Your task to perform on an android device: change notifications settings Image 0: 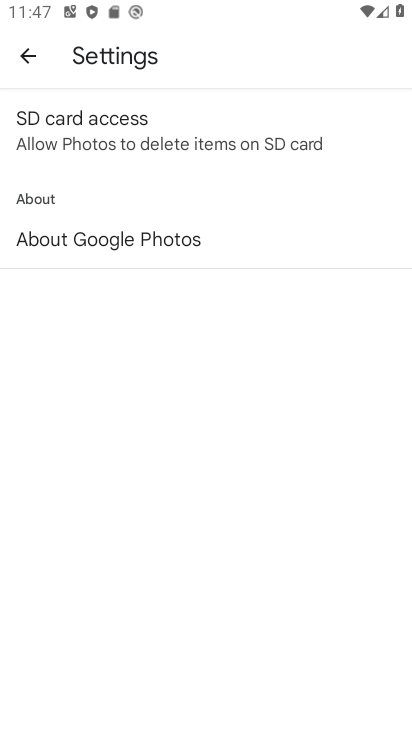
Step 0: press home button
Your task to perform on an android device: change notifications settings Image 1: 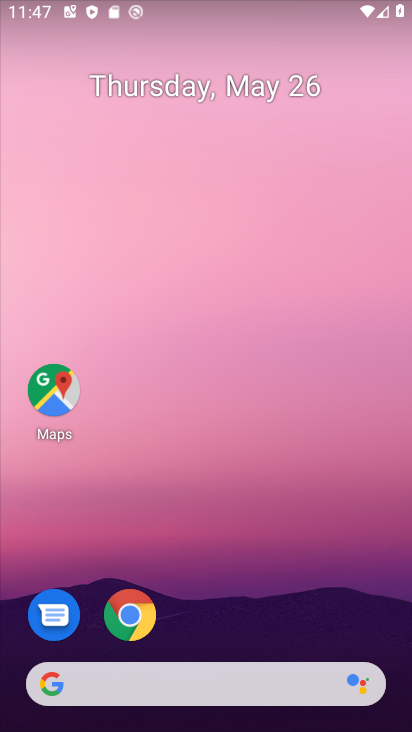
Step 1: drag from (127, 669) to (281, 0)
Your task to perform on an android device: change notifications settings Image 2: 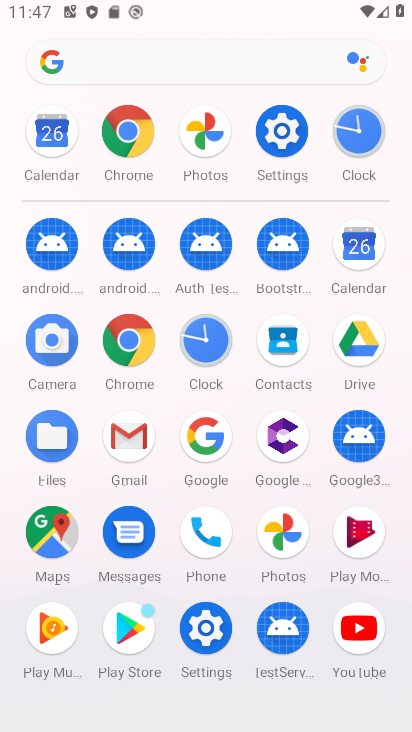
Step 2: click (220, 627)
Your task to perform on an android device: change notifications settings Image 3: 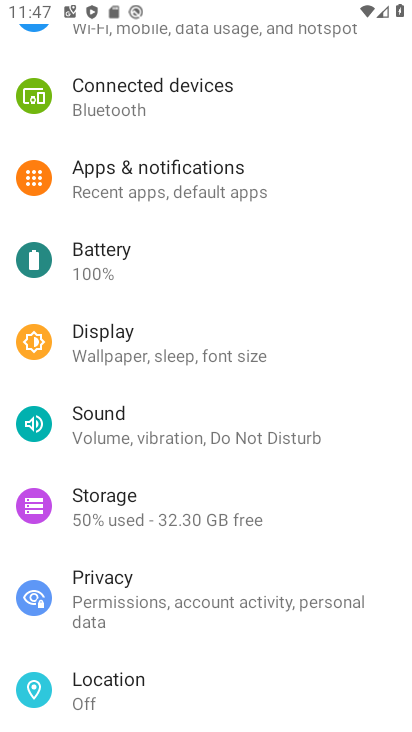
Step 3: click (234, 181)
Your task to perform on an android device: change notifications settings Image 4: 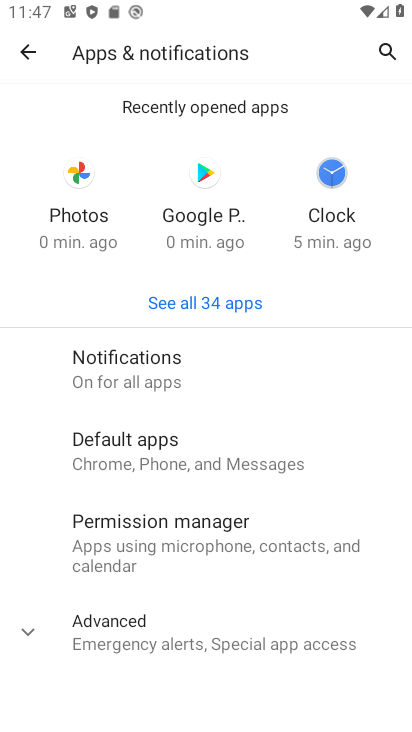
Step 4: press home button
Your task to perform on an android device: change notifications settings Image 5: 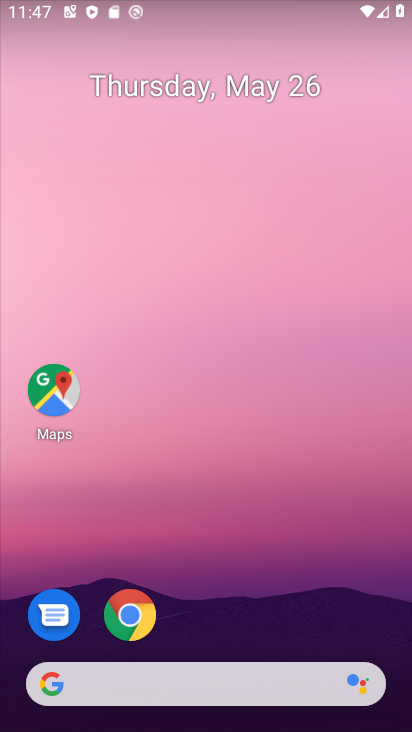
Step 5: drag from (199, 697) to (218, 105)
Your task to perform on an android device: change notifications settings Image 6: 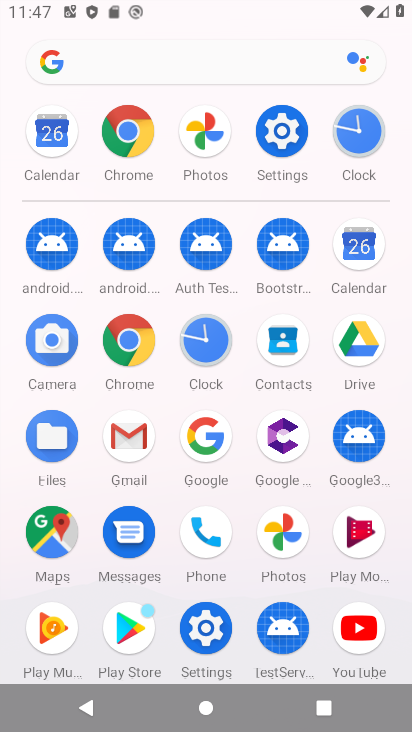
Step 6: click (269, 120)
Your task to perform on an android device: change notifications settings Image 7: 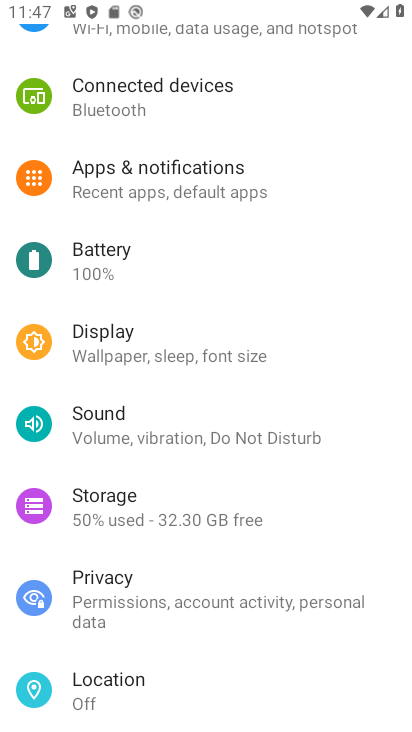
Step 7: click (216, 167)
Your task to perform on an android device: change notifications settings Image 8: 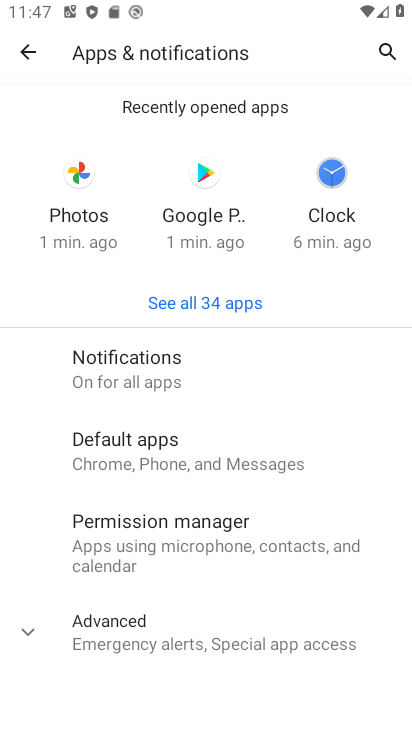
Step 8: click (233, 388)
Your task to perform on an android device: change notifications settings Image 9: 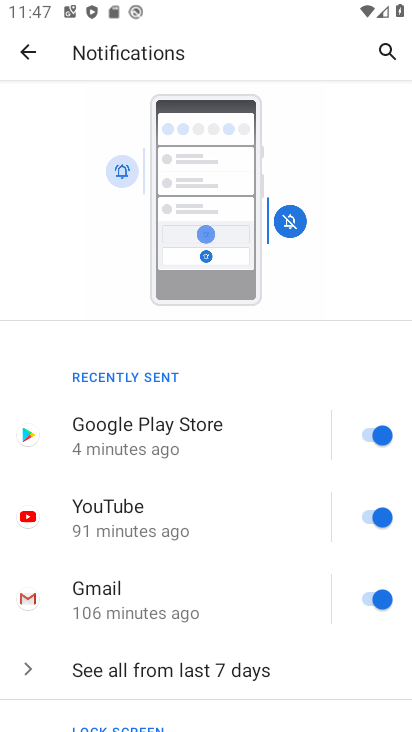
Step 9: click (366, 516)
Your task to perform on an android device: change notifications settings Image 10: 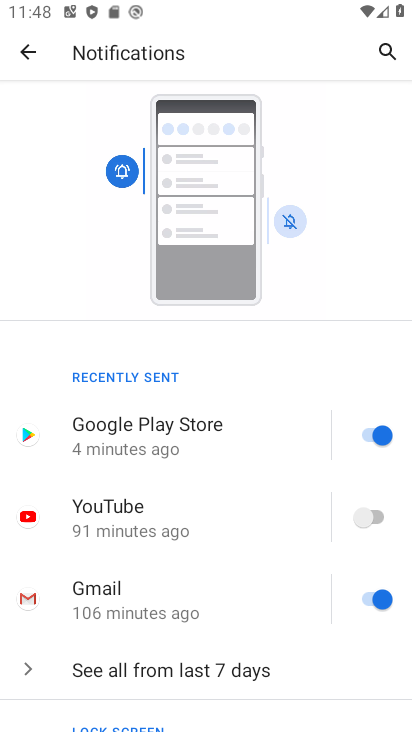
Step 10: task complete